Your task to perform on an android device: choose inbox layout in the gmail app Image 0: 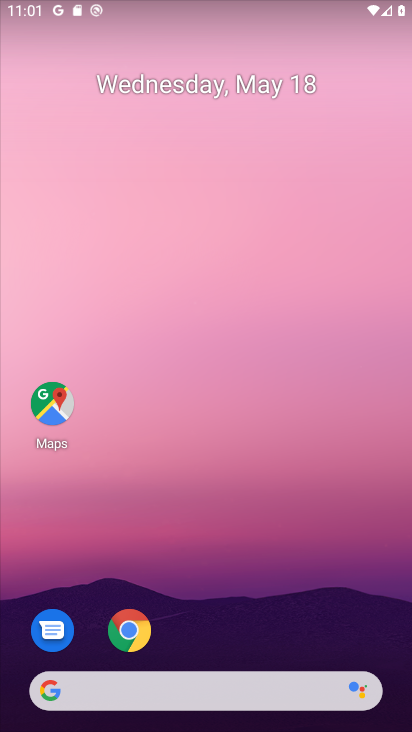
Step 0: drag from (257, 626) to (271, 245)
Your task to perform on an android device: choose inbox layout in the gmail app Image 1: 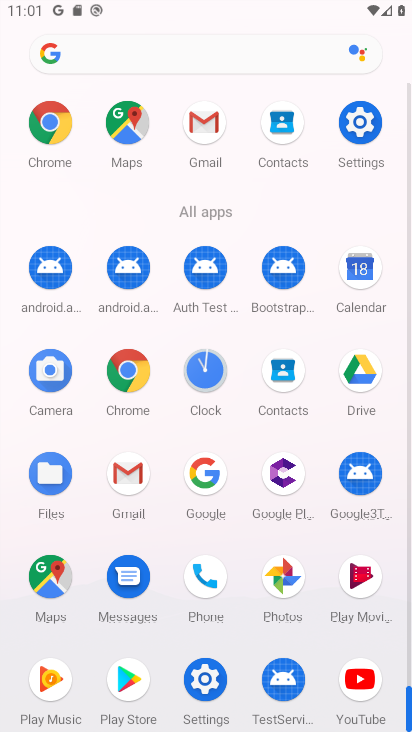
Step 1: click (216, 146)
Your task to perform on an android device: choose inbox layout in the gmail app Image 2: 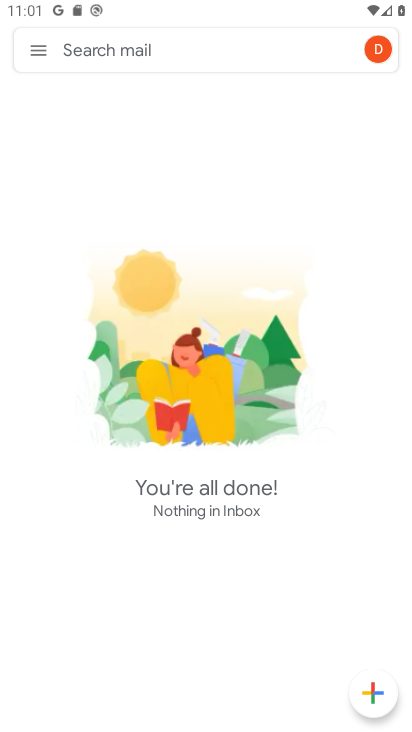
Step 2: click (37, 42)
Your task to perform on an android device: choose inbox layout in the gmail app Image 3: 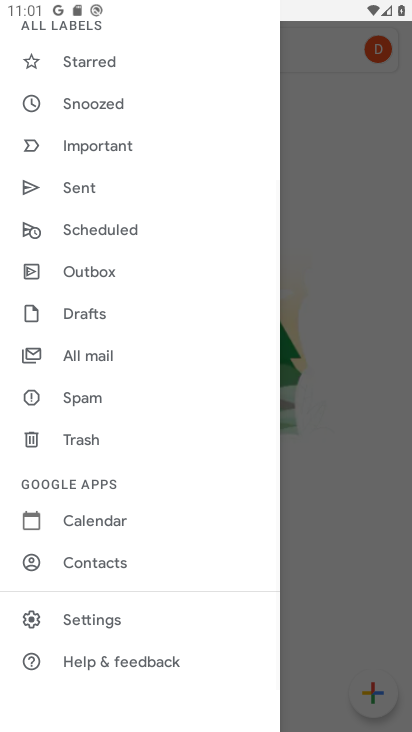
Step 3: click (97, 620)
Your task to perform on an android device: choose inbox layout in the gmail app Image 4: 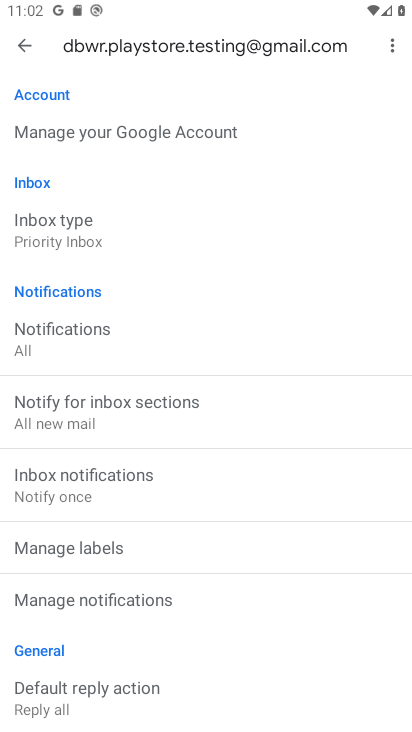
Step 4: click (137, 221)
Your task to perform on an android device: choose inbox layout in the gmail app Image 5: 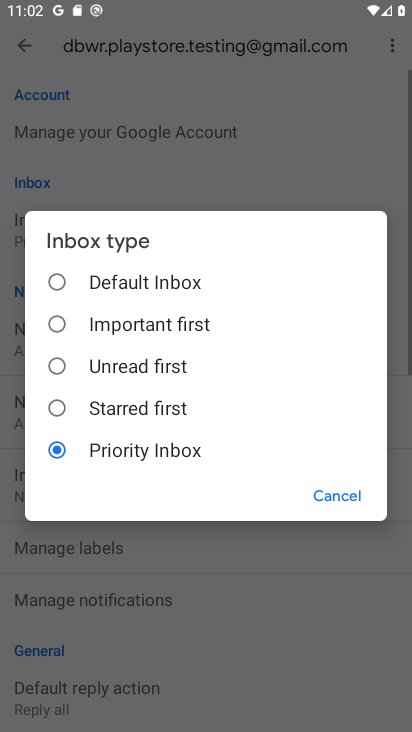
Step 5: click (128, 332)
Your task to perform on an android device: choose inbox layout in the gmail app Image 6: 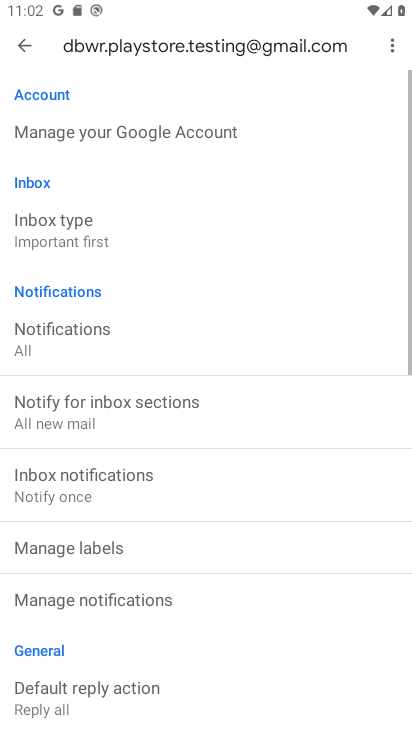
Step 6: task complete